Your task to perform on an android device: empty trash in google photos Image 0: 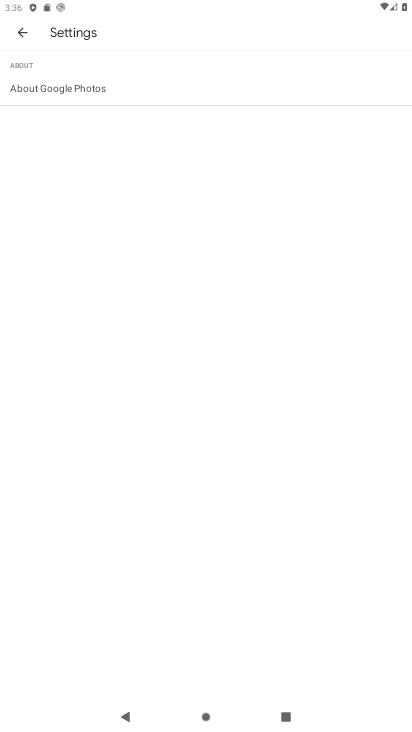
Step 0: press home button
Your task to perform on an android device: empty trash in google photos Image 1: 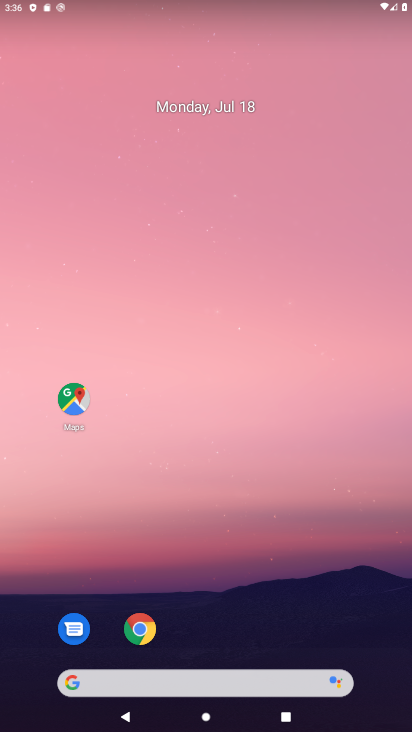
Step 1: drag from (206, 591) to (224, 29)
Your task to perform on an android device: empty trash in google photos Image 2: 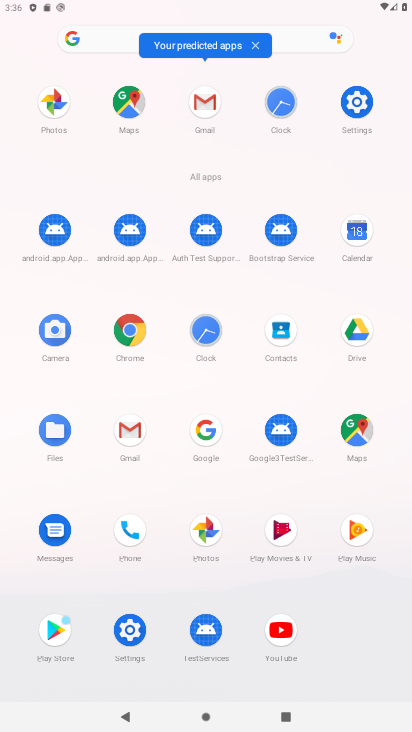
Step 2: click (128, 432)
Your task to perform on an android device: empty trash in google photos Image 3: 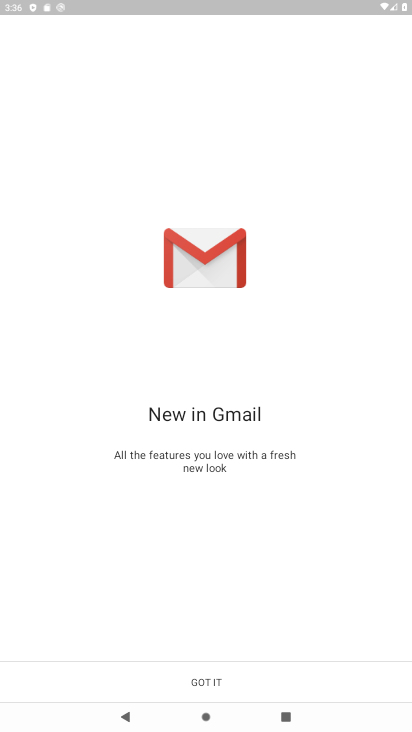
Step 3: click (230, 680)
Your task to perform on an android device: empty trash in google photos Image 4: 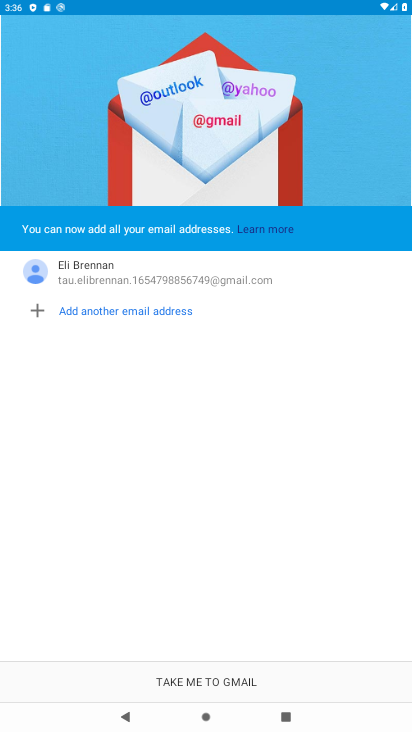
Step 4: click (229, 679)
Your task to perform on an android device: empty trash in google photos Image 5: 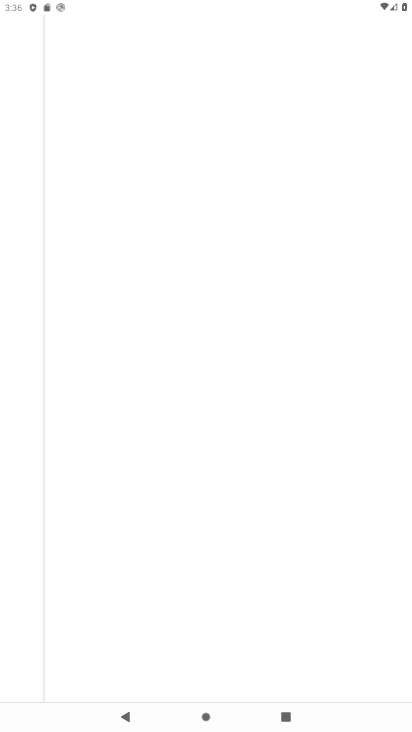
Step 5: click (229, 679)
Your task to perform on an android device: empty trash in google photos Image 6: 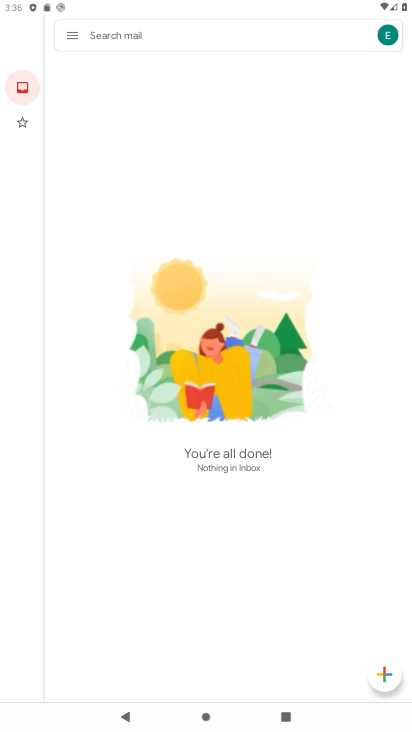
Step 6: click (70, 31)
Your task to perform on an android device: empty trash in google photos Image 7: 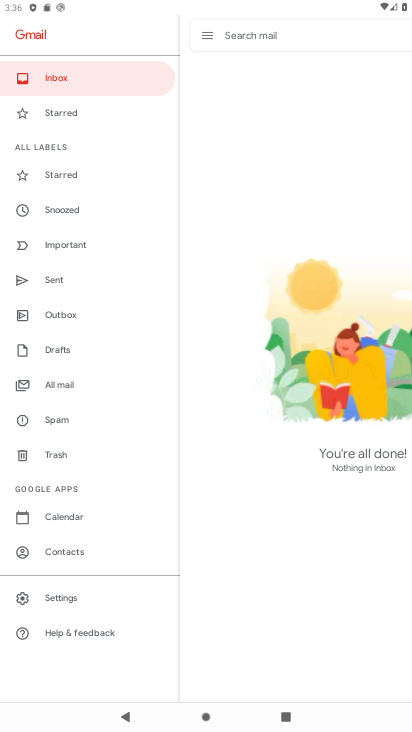
Step 7: click (80, 457)
Your task to perform on an android device: empty trash in google photos Image 8: 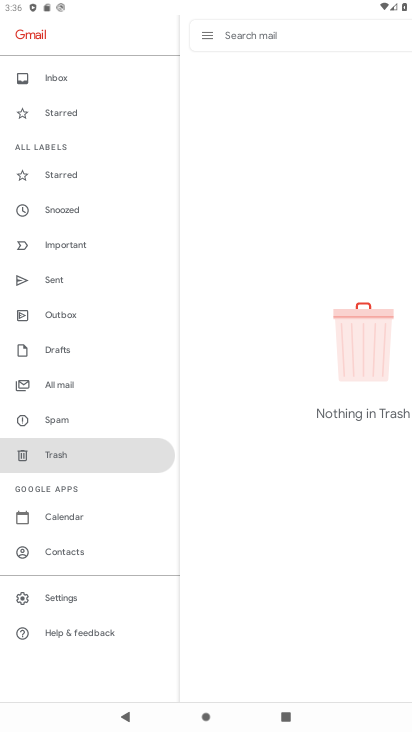
Step 8: task complete